Your task to perform on an android device: Open network settings Image 0: 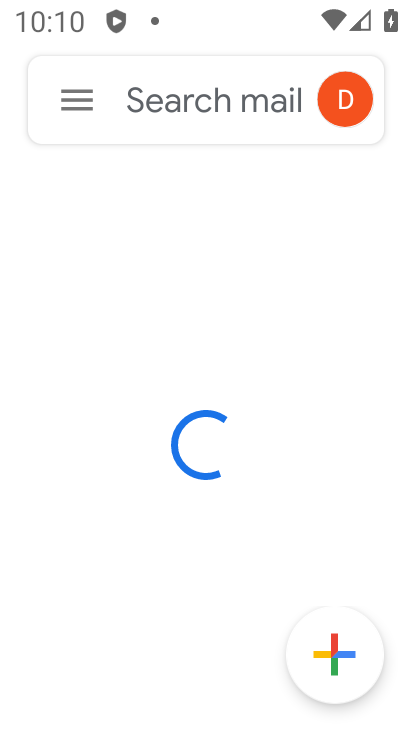
Step 0: press home button
Your task to perform on an android device: Open network settings Image 1: 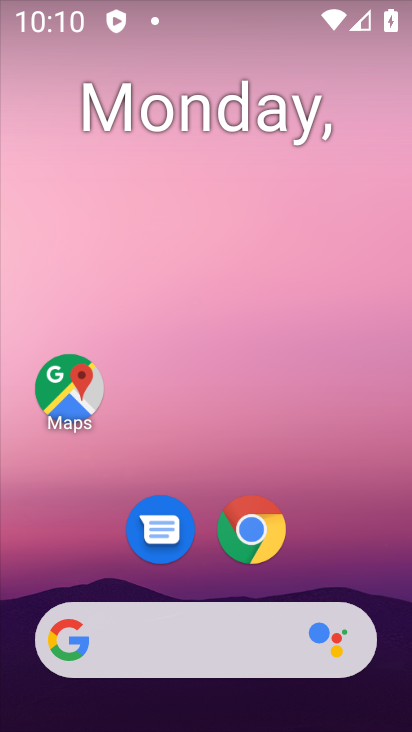
Step 1: drag from (337, 525) to (243, 16)
Your task to perform on an android device: Open network settings Image 2: 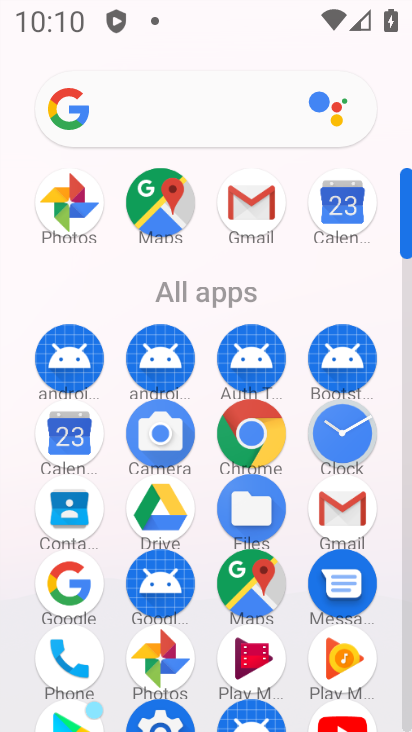
Step 2: drag from (201, 620) to (156, 183)
Your task to perform on an android device: Open network settings Image 3: 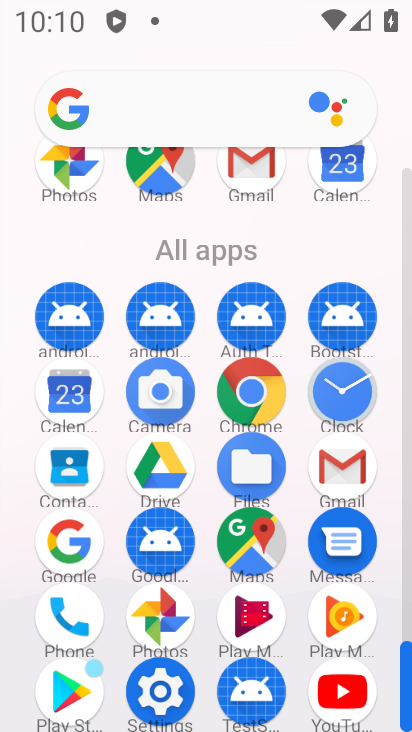
Step 3: click (159, 688)
Your task to perform on an android device: Open network settings Image 4: 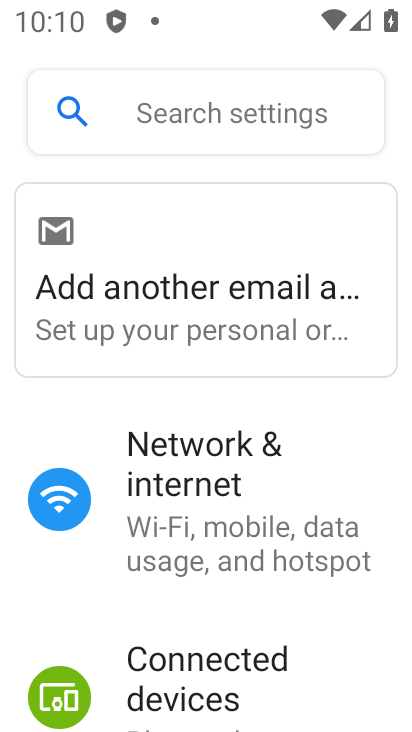
Step 4: click (177, 467)
Your task to perform on an android device: Open network settings Image 5: 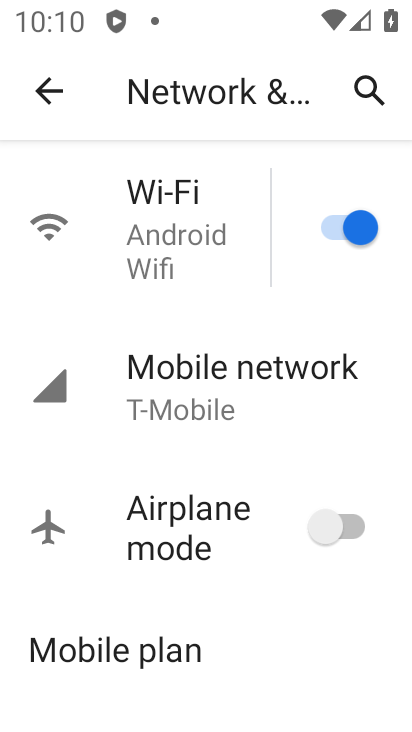
Step 5: click (277, 359)
Your task to perform on an android device: Open network settings Image 6: 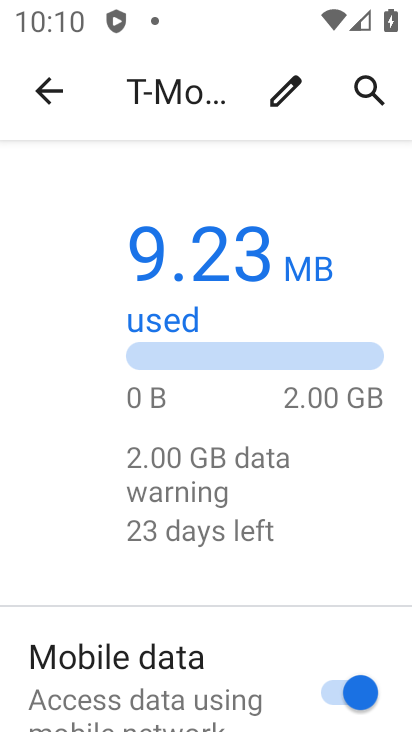
Step 6: task complete